Your task to perform on an android device: Open Google Chrome and open the bookmarks view Image 0: 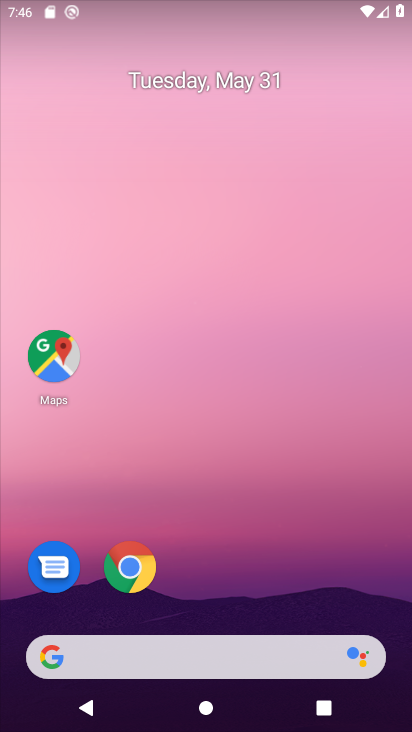
Step 0: click (142, 586)
Your task to perform on an android device: Open Google Chrome and open the bookmarks view Image 1: 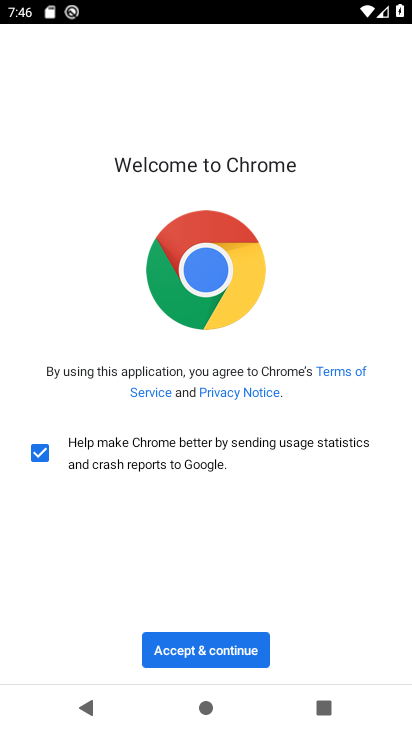
Step 1: click (200, 634)
Your task to perform on an android device: Open Google Chrome and open the bookmarks view Image 2: 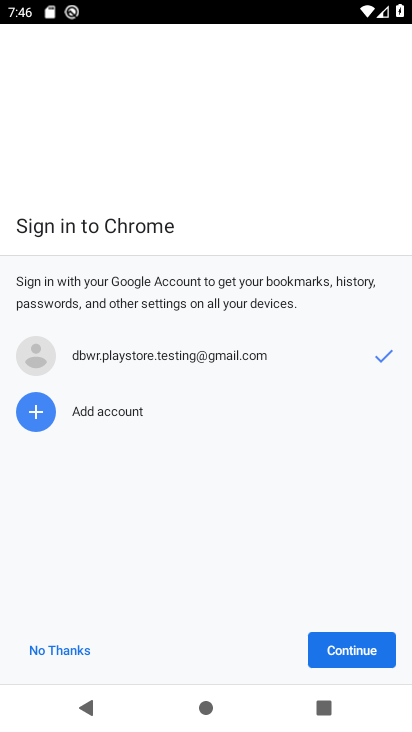
Step 2: click (368, 660)
Your task to perform on an android device: Open Google Chrome and open the bookmarks view Image 3: 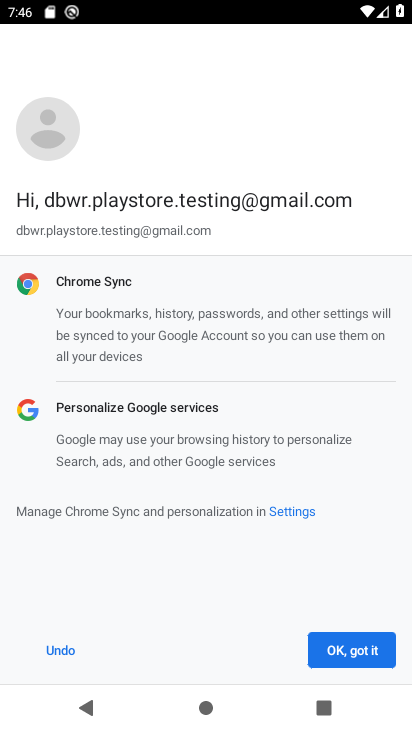
Step 3: click (363, 647)
Your task to perform on an android device: Open Google Chrome and open the bookmarks view Image 4: 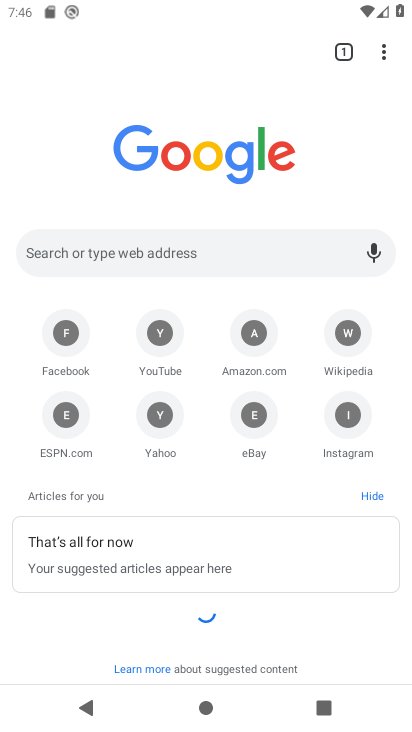
Step 4: click (380, 62)
Your task to perform on an android device: Open Google Chrome and open the bookmarks view Image 5: 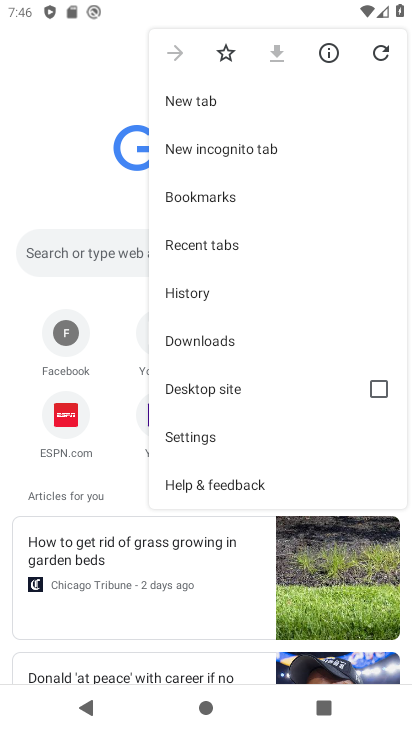
Step 5: click (258, 201)
Your task to perform on an android device: Open Google Chrome and open the bookmarks view Image 6: 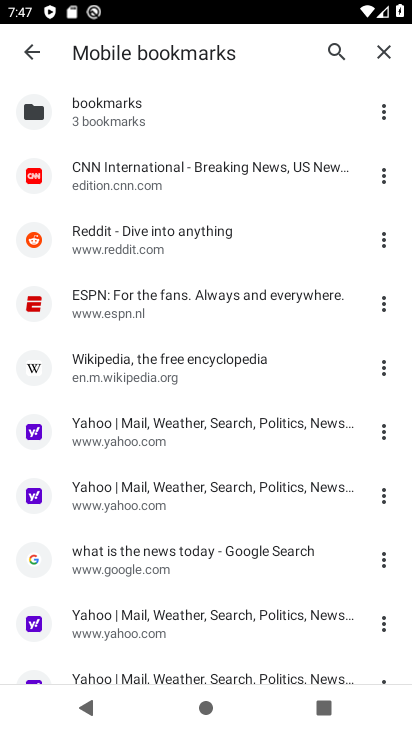
Step 6: task complete